Your task to perform on an android device: snooze an email in the gmail app Image 0: 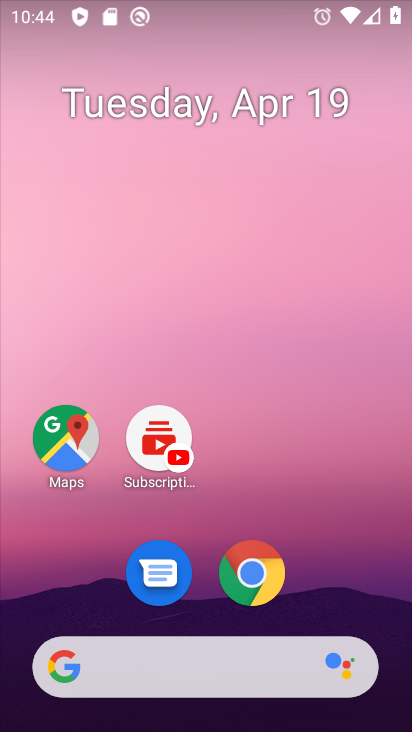
Step 0: press home button
Your task to perform on an android device: snooze an email in the gmail app Image 1: 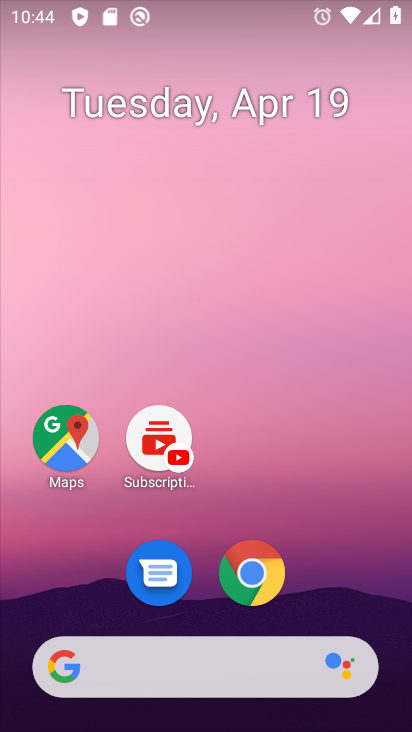
Step 1: drag from (325, 573) to (60, 104)
Your task to perform on an android device: snooze an email in the gmail app Image 2: 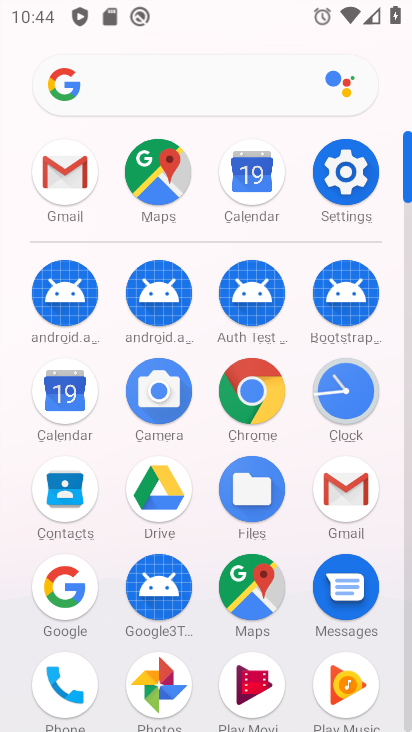
Step 2: click (346, 497)
Your task to perform on an android device: snooze an email in the gmail app Image 3: 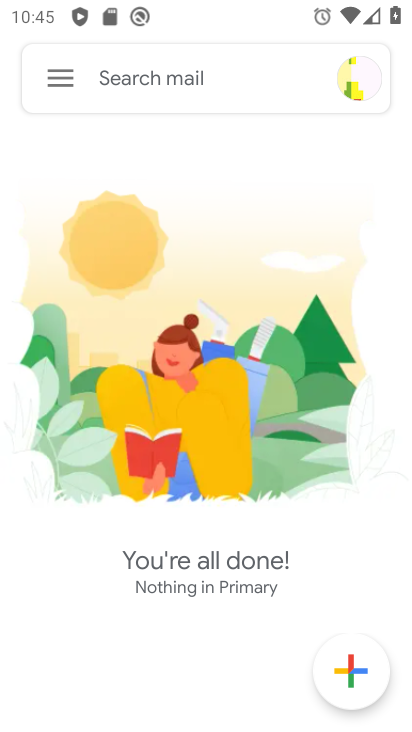
Step 3: click (66, 81)
Your task to perform on an android device: snooze an email in the gmail app Image 4: 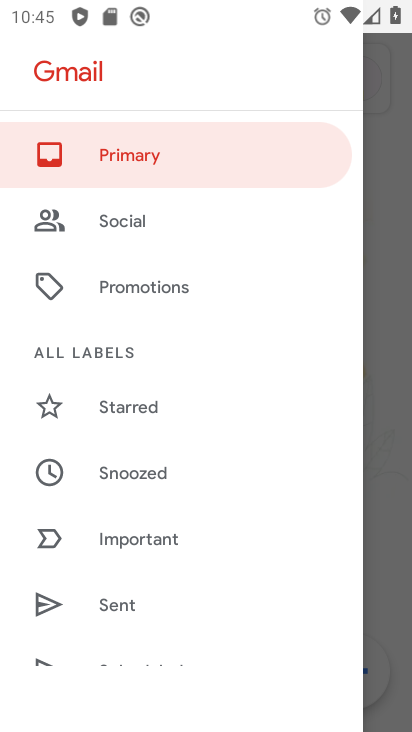
Step 4: drag from (150, 641) to (142, 383)
Your task to perform on an android device: snooze an email in the gmail app Image 5: 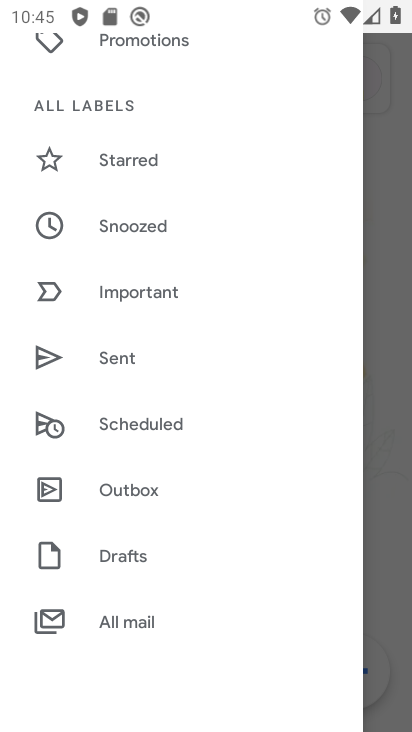
Step 5: click (117, 228)
Your task to perform on an android device: snooze an email in the gmail app Image 6: 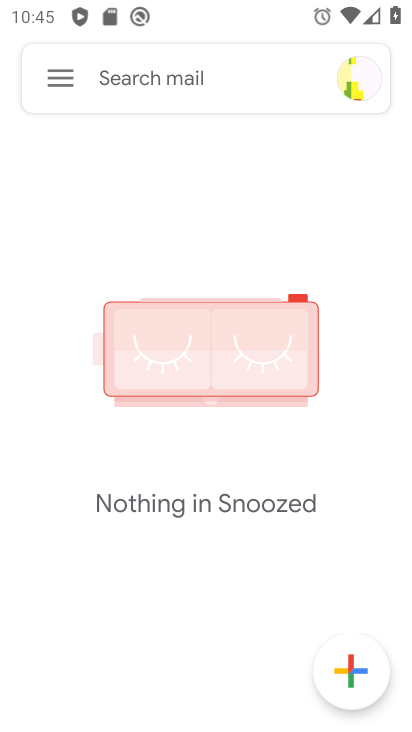
Step 6: task complete